Your task to perform on an android device: Add "macbook" to the cart on costco, then select checkout. Image 0: 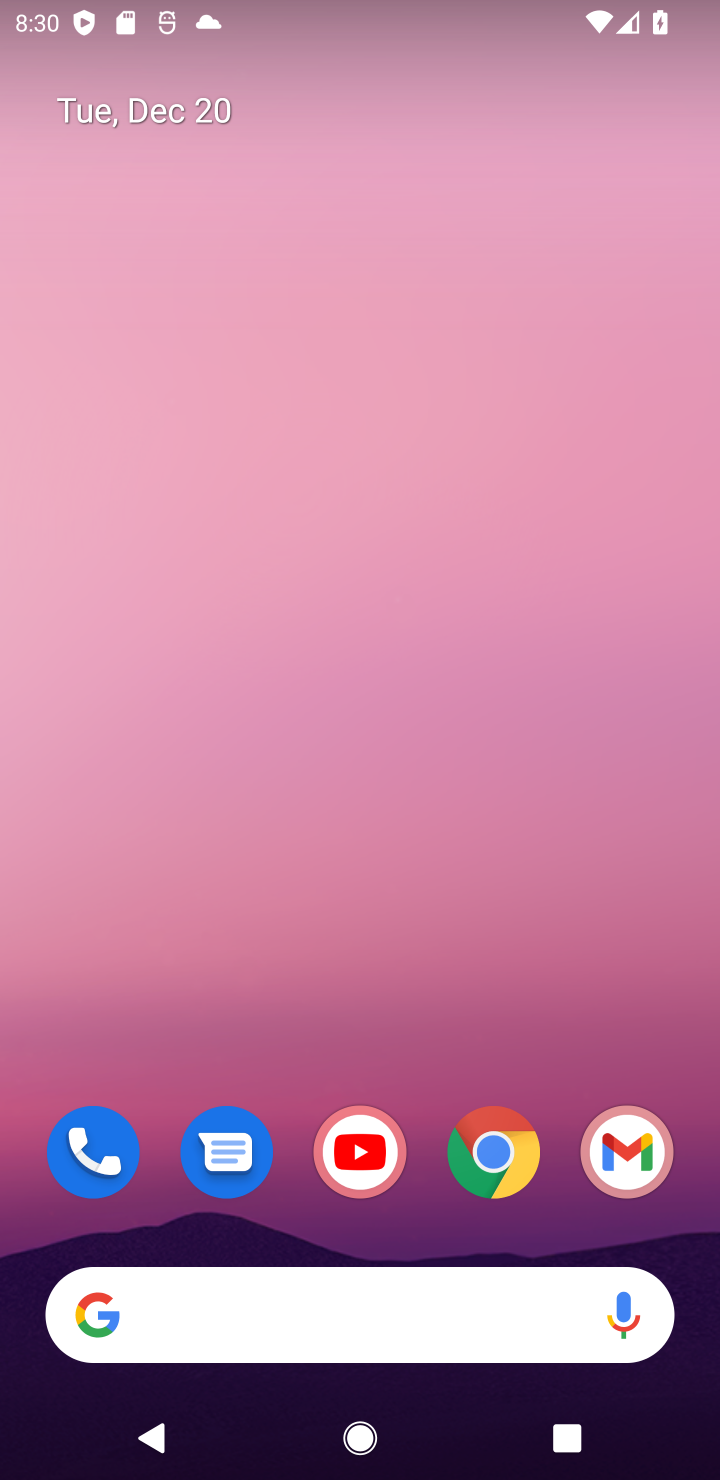
Step 0: click (485, 1151)
Your task to perform on an android device: Add "macbook" to the cart on costco, then select checkout. Image 1: 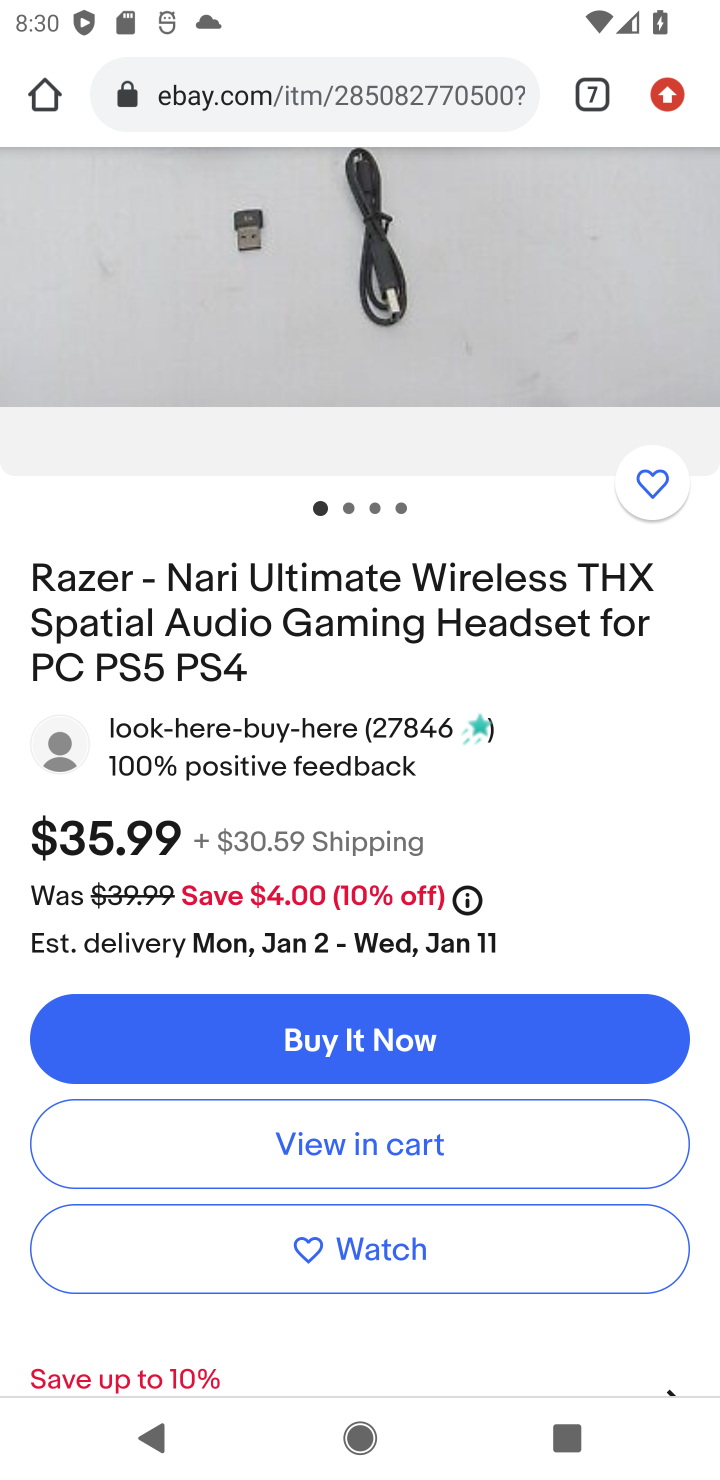
Step 1: click (584, 95)
Your task to perform on an android device: Add "macbook" to the cart on costco, then select checkout. Image 2: 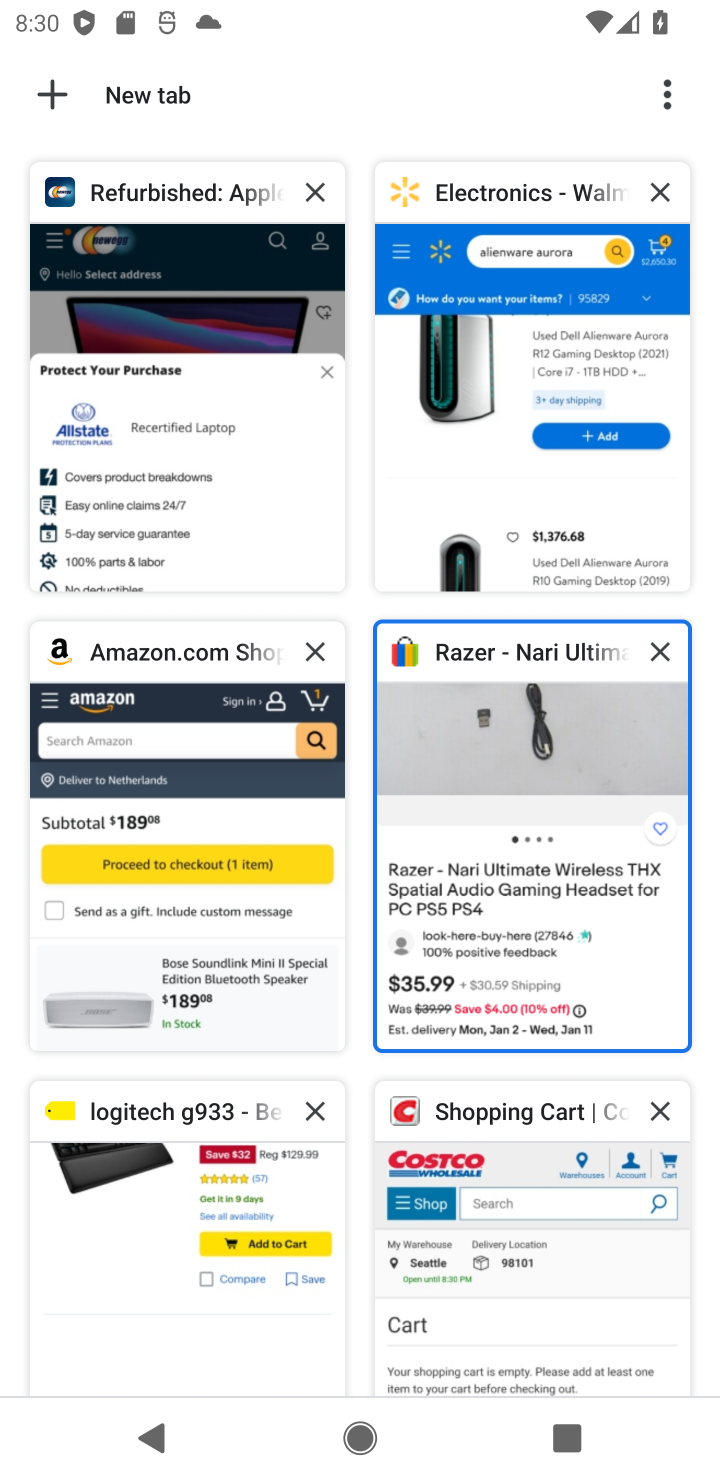
Step 2: click (486, 1168)
Your task to perform on an android device: Add "macbook" to the cart on costco, then select checkout. Image 3: 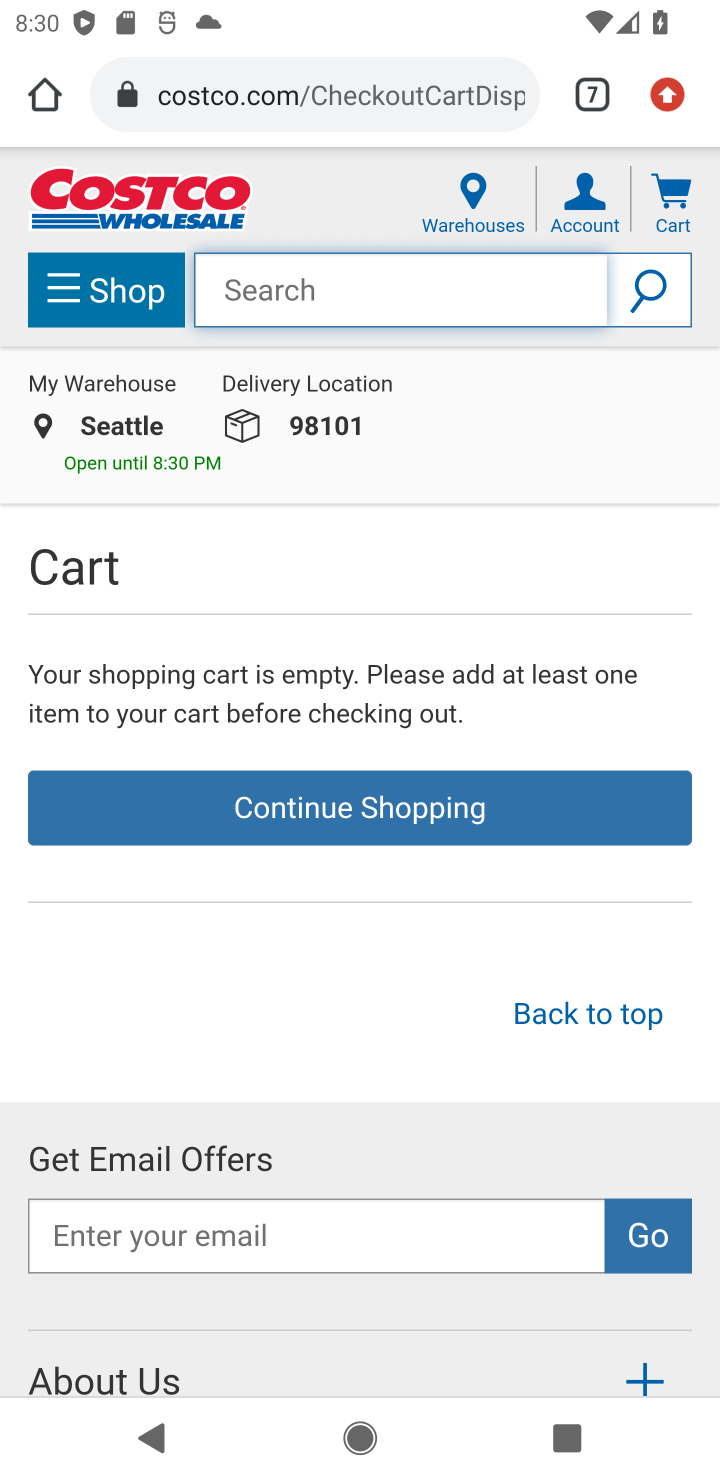
Step 3: type "macbook"
Your task to perform on an android device: Add "macbook" to the cart on costco, then select checkout. Image 4: 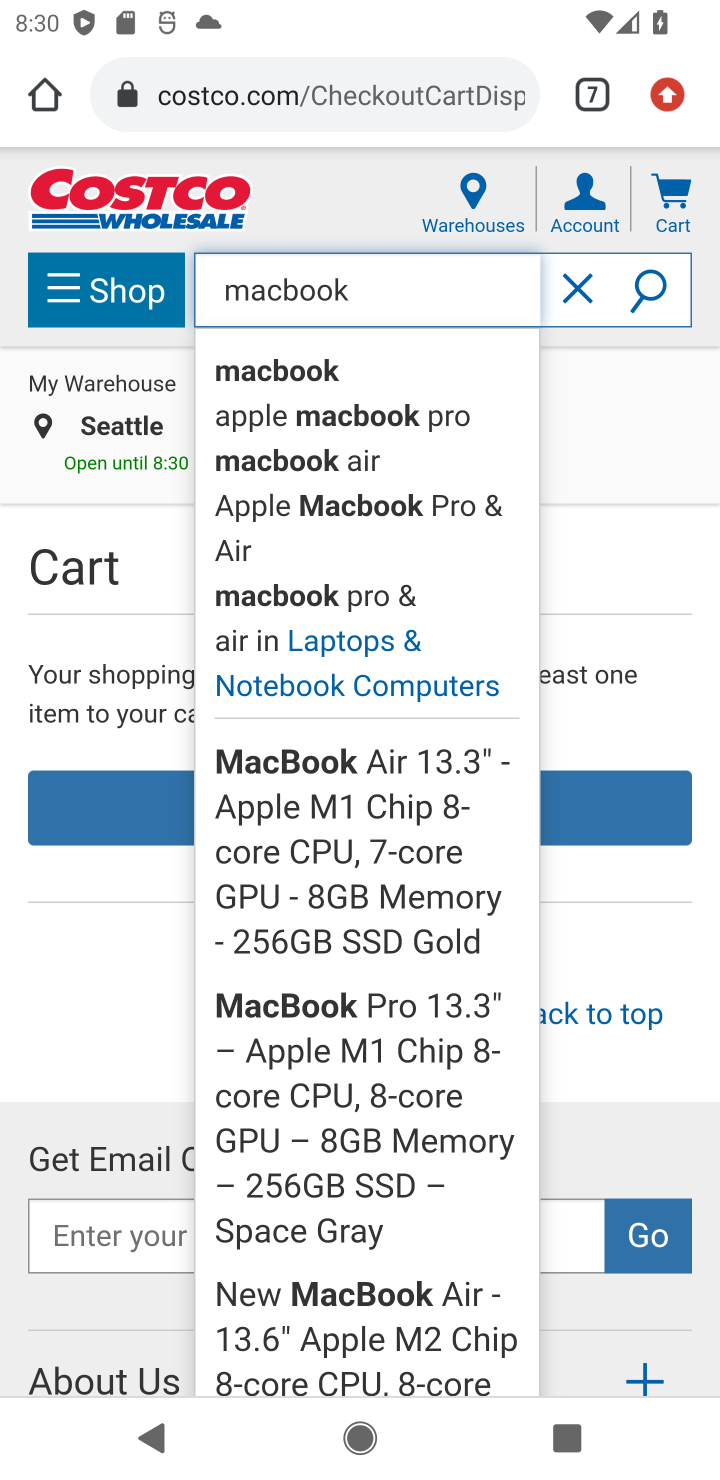
Step 4: click (647, 290)
Your task to perform on an android device: Add "macbook" to the cart on costco, then select checkout. Image 5: 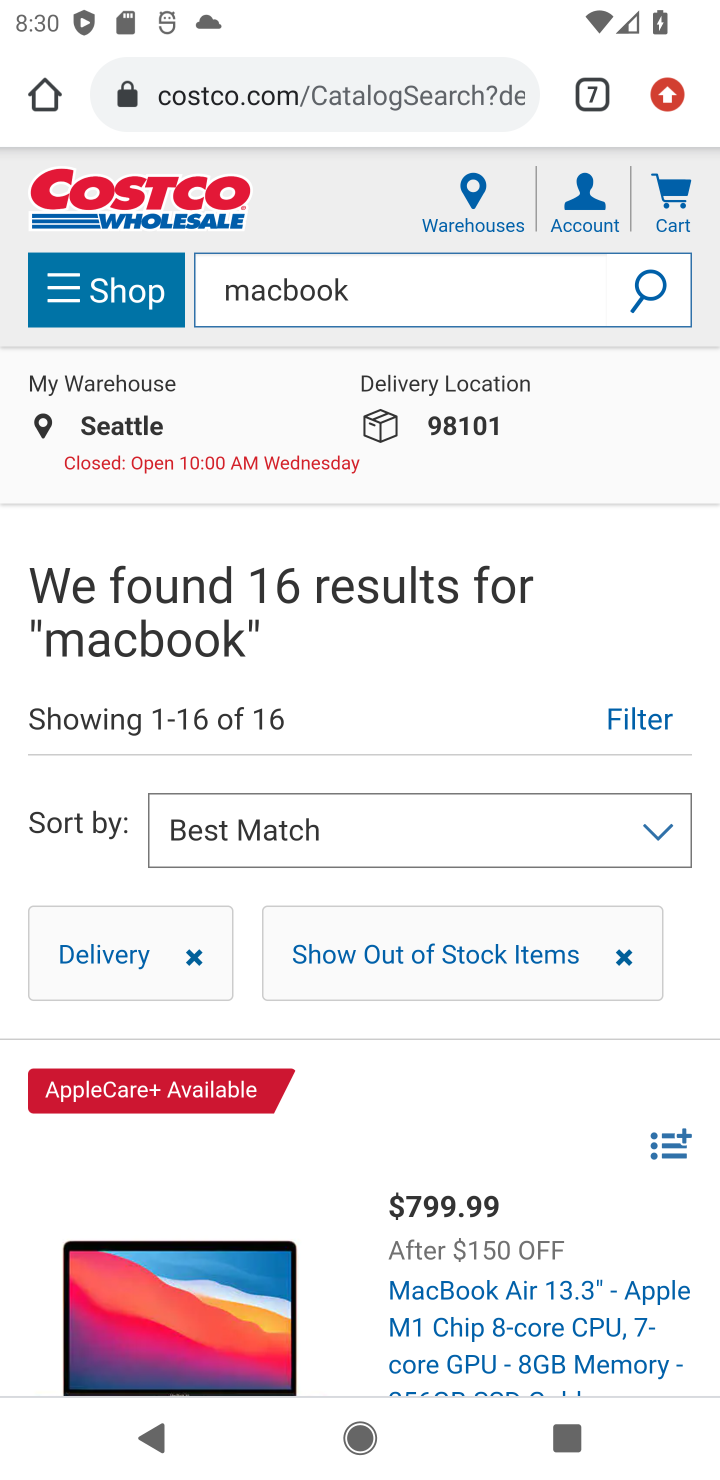
Step 5: drag from (466, 1111) to (509, 321)
Your task to perform on an android device: Add "macbook" to the cart on costco, then select checkout. Image 6: 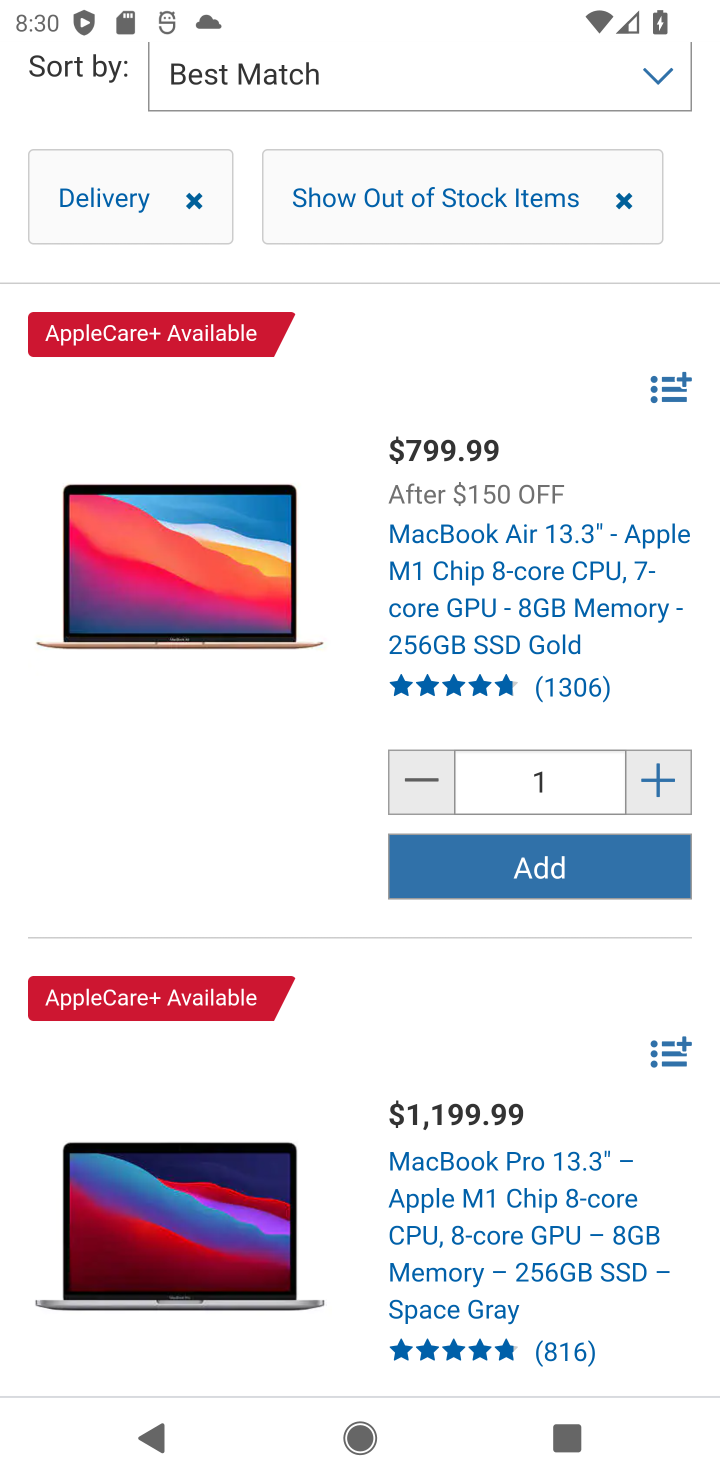
Step 6: click (486, 891)
Your task to perform on an android device: Add "macbook" to the cart on costco, then select checkout. Image 7: 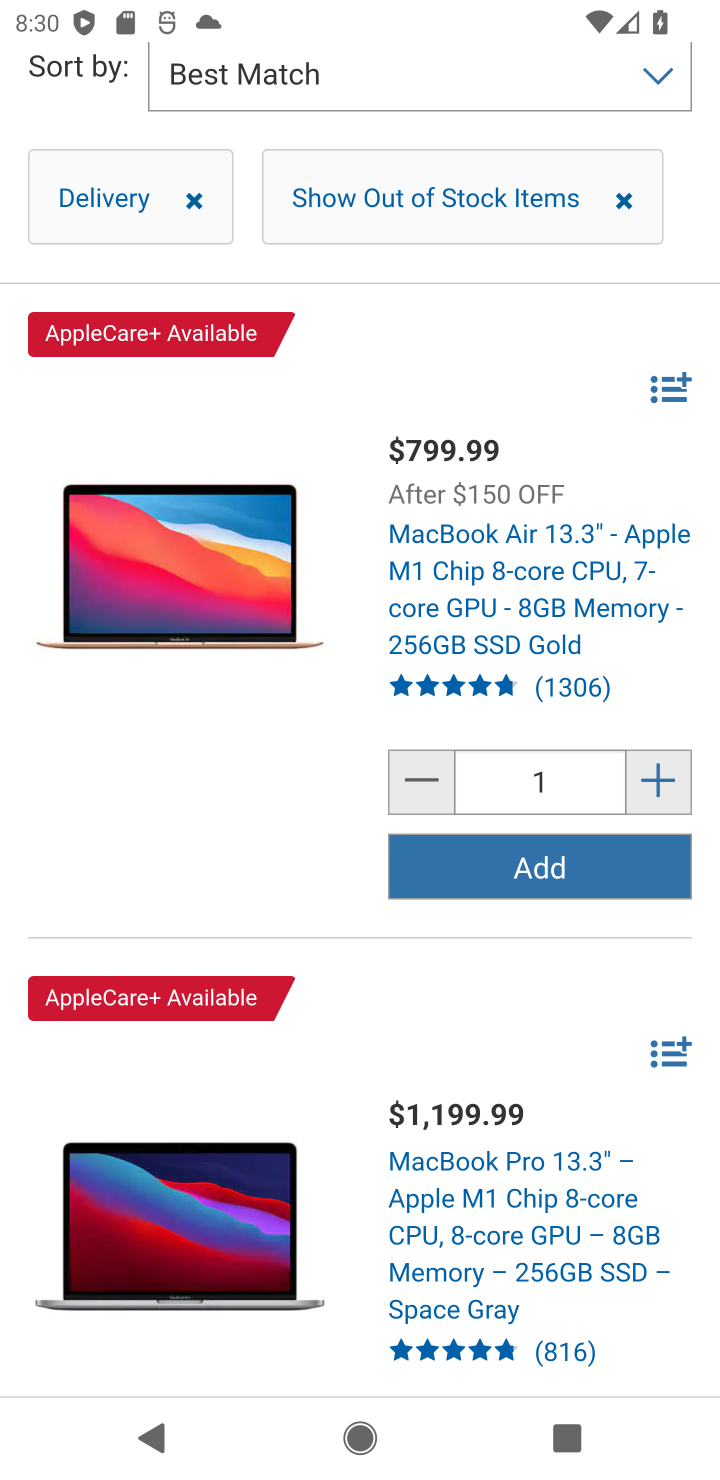
Step 7: task complete